Your task to perform on an android device: turn off notifications settings in the gmail app Image 0: 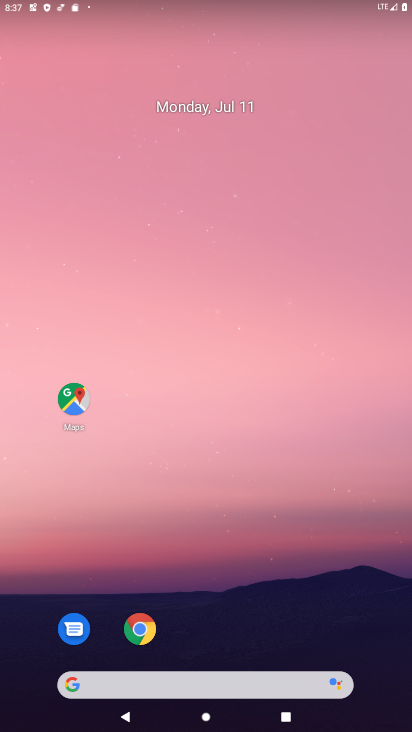
Step 0: click (146, 626)
Your task to perform on an android device: turn off notifications settings in the gmail app Image 1: 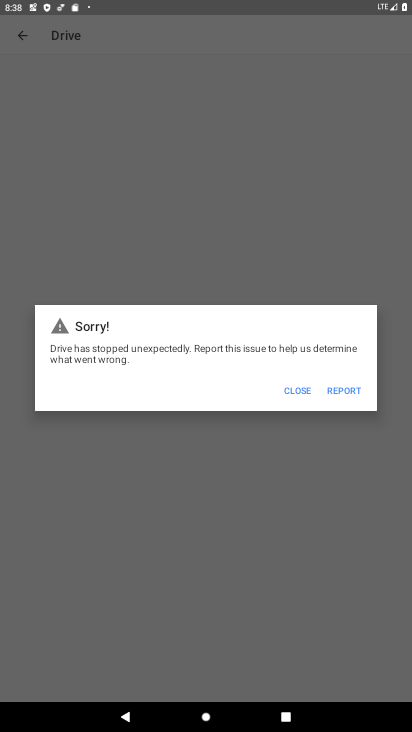
Step 1: click (305, 386)
Your task to perform on an android device: turn off notifications settings in the gmail app Image 2: 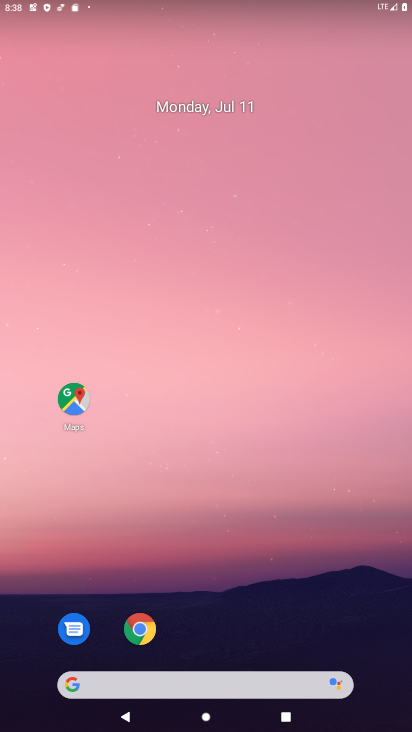
Step 2: drag from (200, 629) to (318, 52)
Your task to perform on an android device: turn off notifications settings in the gmail app Image 3: 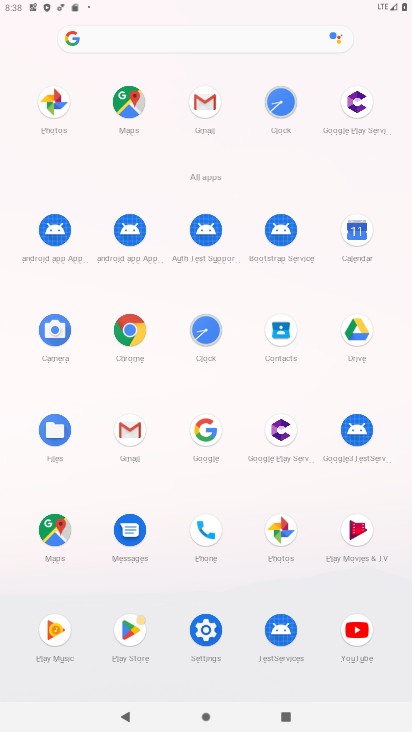
Step 3: click (193, 112)
Your task to perform on an android device: turn off notifications settings in the gmail app Image 4: 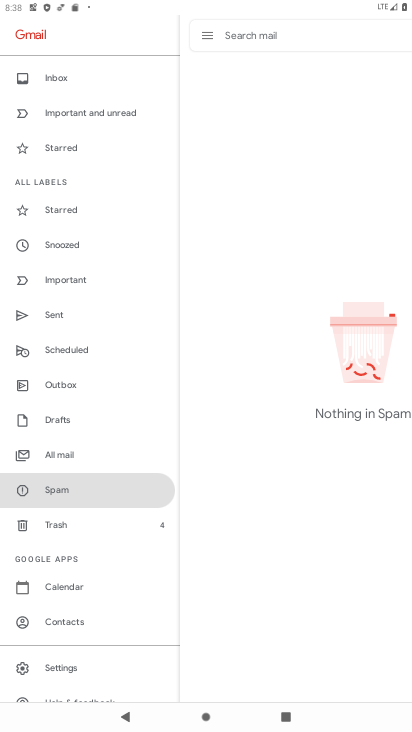
Step 4: click (69, 670)
Your task to perform on an android device: turn off notifications settings in the gmail app Image 5: 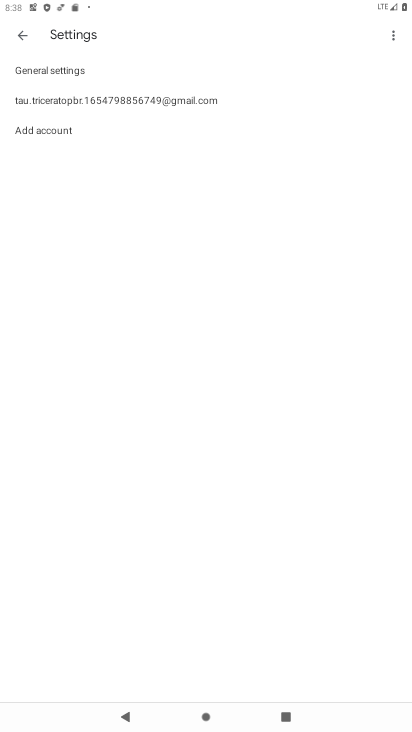
Step 5: click (227, 94)
Your task to perform on an android device: turn off notifications settings in the gmail app Image 6: 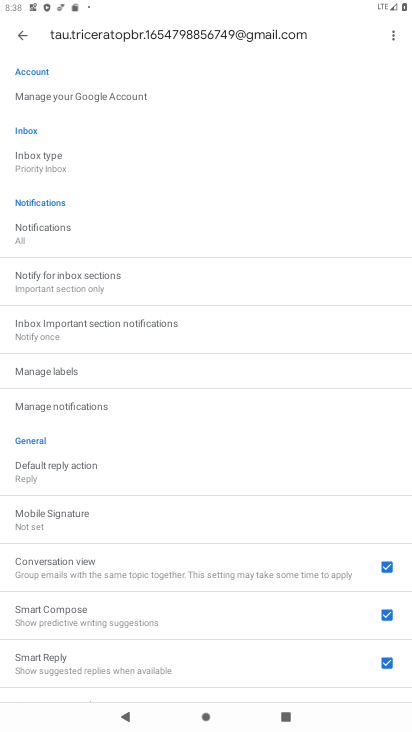
Step 6: click (215, 233)
Your task to perform on an android device: turn off notifications settings in the gmail app Image 7: 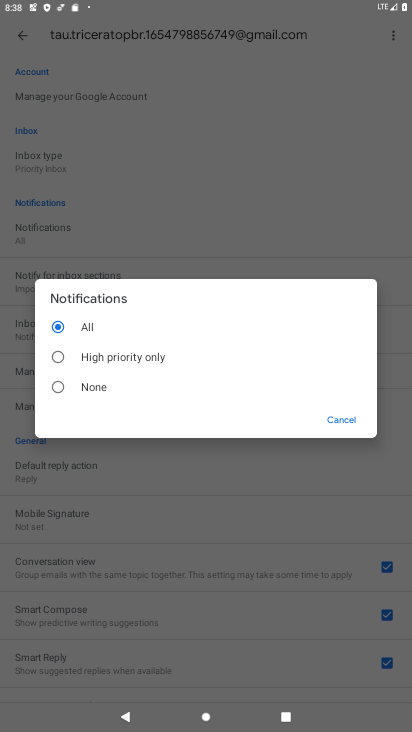
Step 7: click (61, 394)
Your task to perform on an android device: turn off notifications settings in the gmail app Image 8: 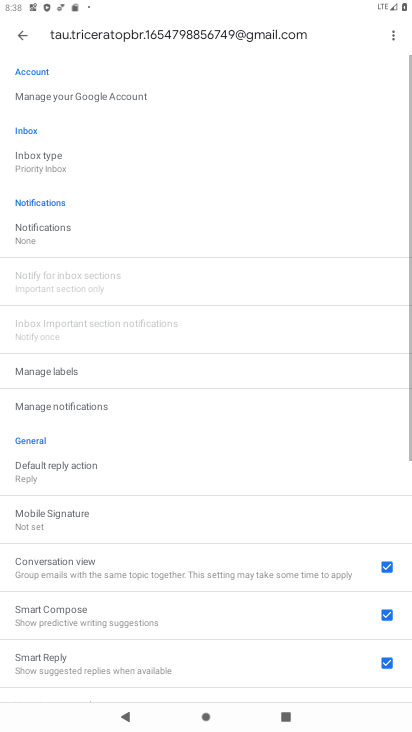
Step 8: task complete